Your task to perform on an android device: open chrome and create a bookmark for the current page Image 0: 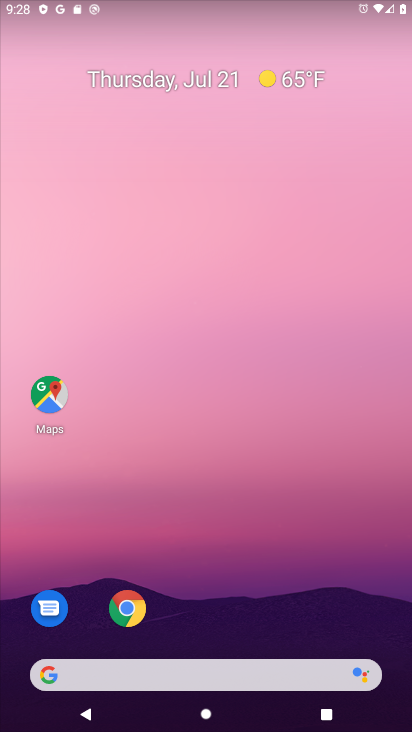
Step 0: drag from (231, 585) to (231, 524)
Your task to perform on an android device: open chrome and create a bookmark for the current page Image 1: 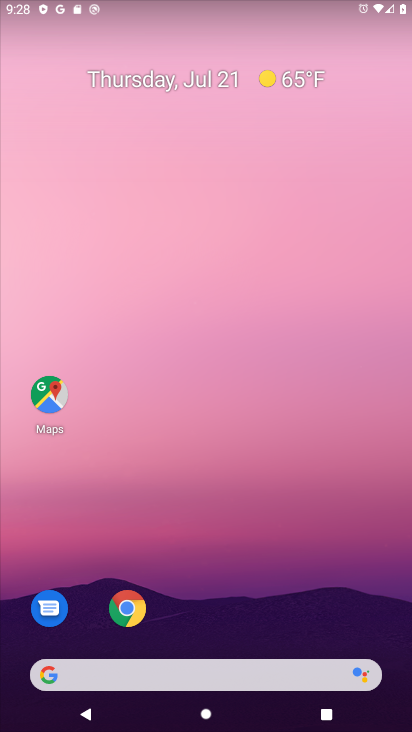
Step 1: click (133, 613)
Your task to perform on an android device: open chrome and create a bookmark for the current page Image 2: 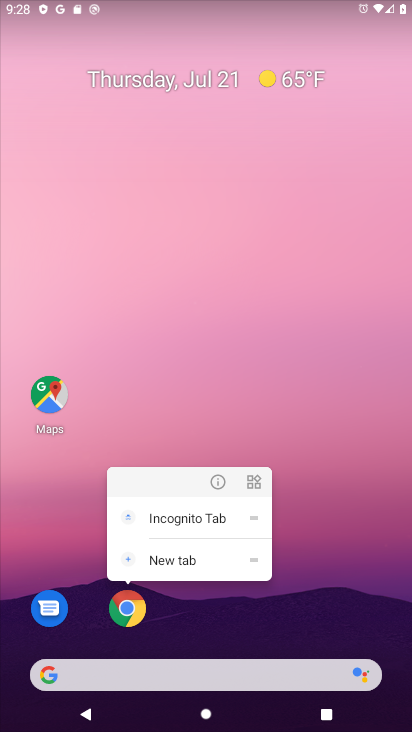
Step 2: click (133, 613)
Your task to perform on an android device: open chrome and create a bookmark for the current page Image 3: 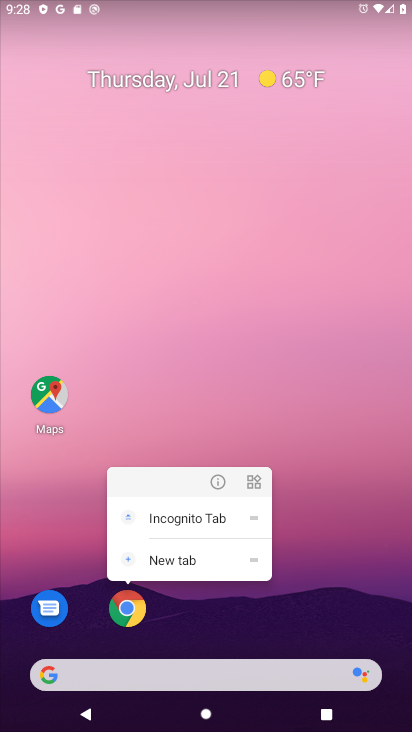
Step 3: click (128, 604)
Your task to perform on an android device: open chrome and create a bookmark for the current page Image 4: 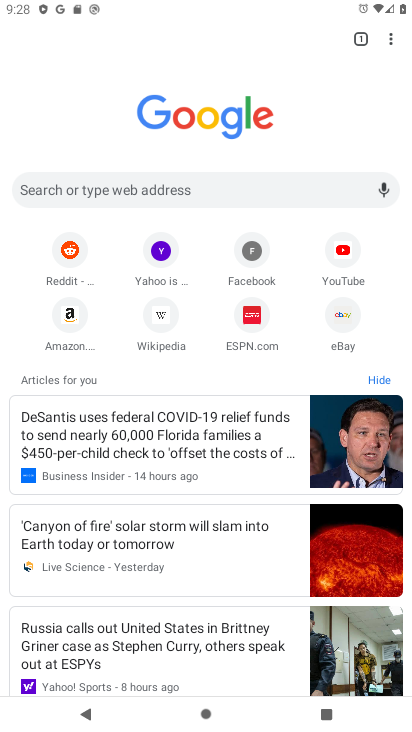
Step 4: click (389, 41)
Your task to perform on an android device: open chrome and create a bookmark for the current page Image 5: 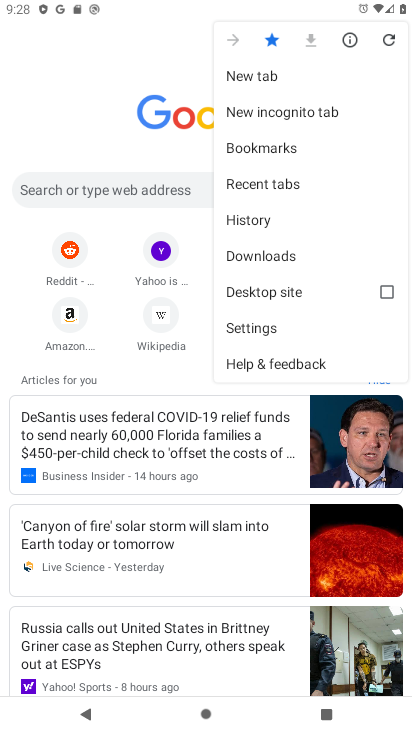
Step 5: click (268, 150)
Your task to perform on an android device: open chrome and create a bookmark for the current page Image 6: 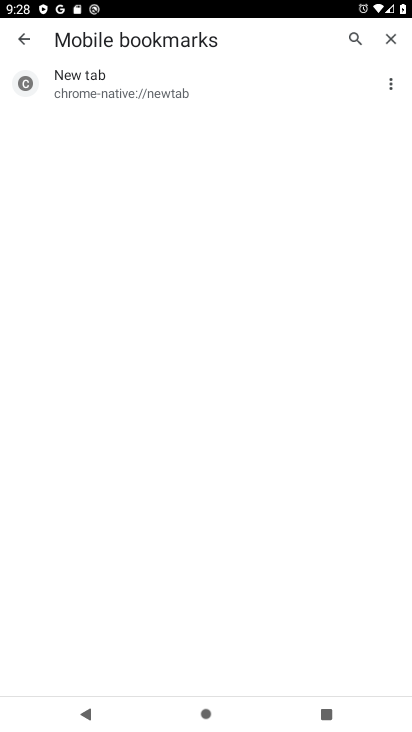
Step 6: task complete